Your task to perform on an android device: Is it going to rain today? Image 0: 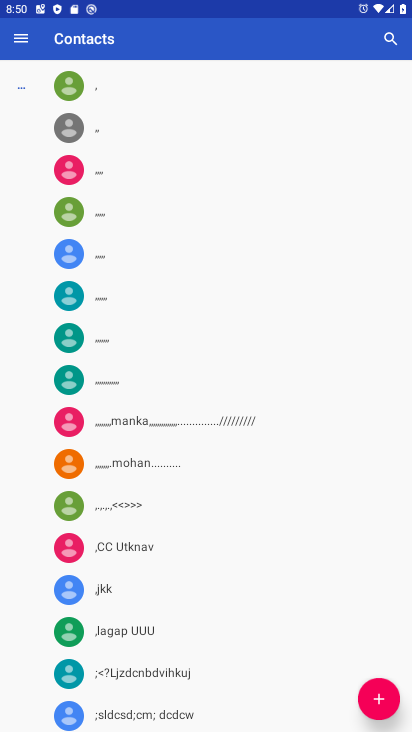
Step 0: press home button
Your task to perform on an android device: Is it going to rain today? Image 1: 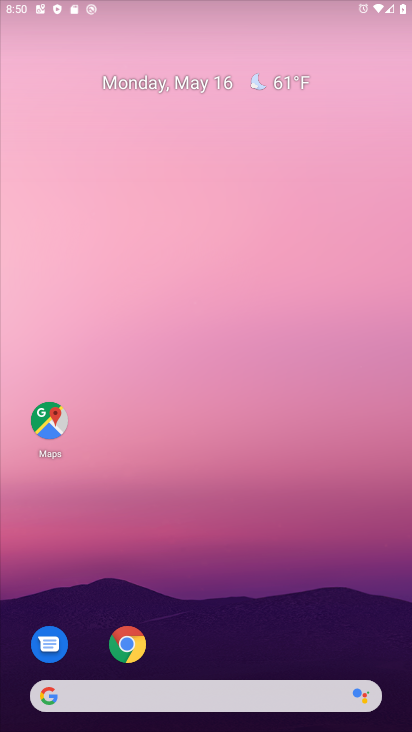
Step 1: drag from (224, 635) to (260, 138)
Your task to perform on an android device: Is it going to rain today? Image 2: 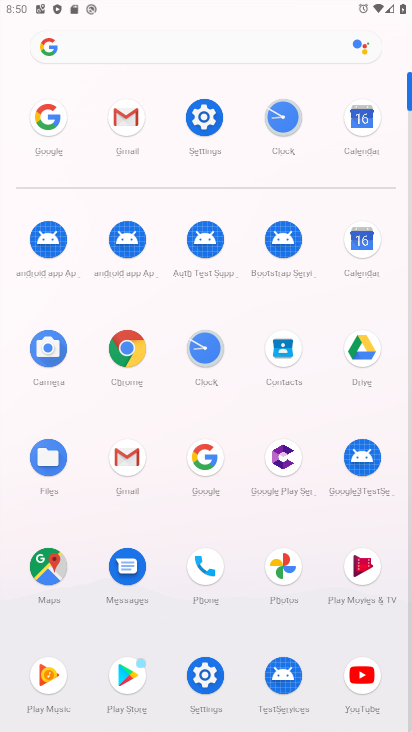
Step 2: click (44, 115)
Your task to perform on an android device: Is it going to rain today? Image 3: 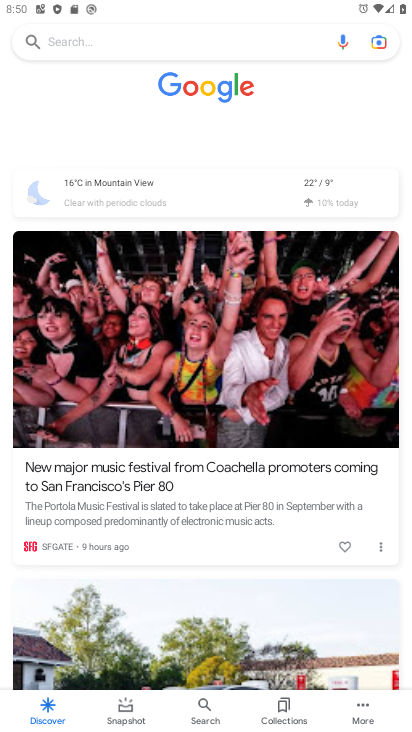
Step 3: click (194, 43)
Your task to perform on an android device: Is it going to rain today? Image 4: 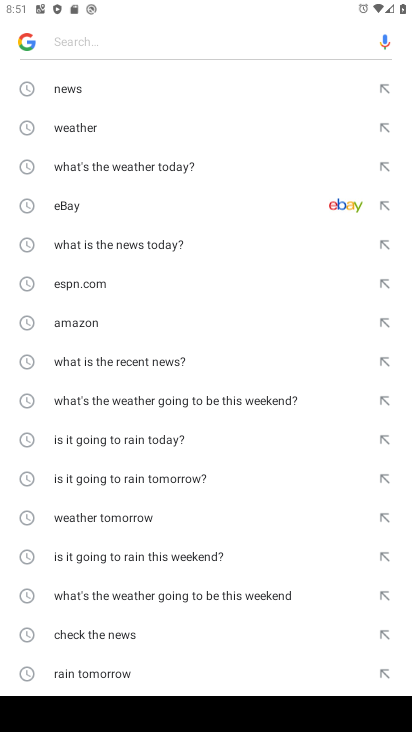
Step 4: type "rain today"
Your task to perform on an android device: Is it going to rain today? Image 5: 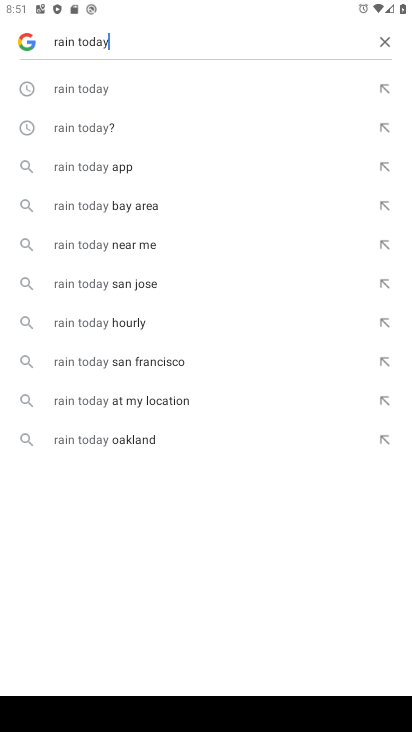
Step 5: click (101, 120)
Your task to perform on an android device: Is it going to rain today? Image 6: 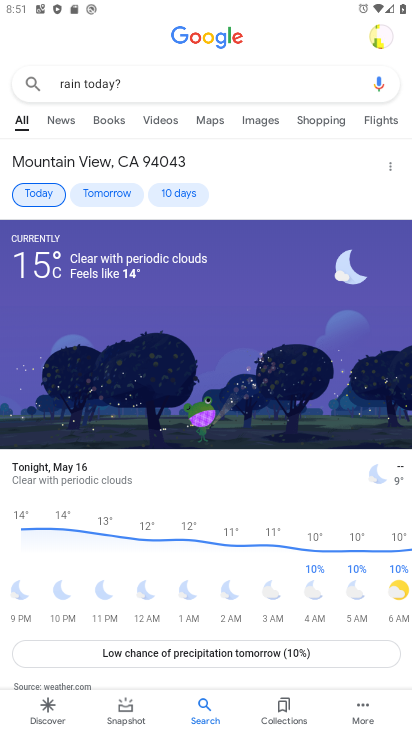
Step 6: task complete